Your task to perform on an android device: check out phone information Image 0: 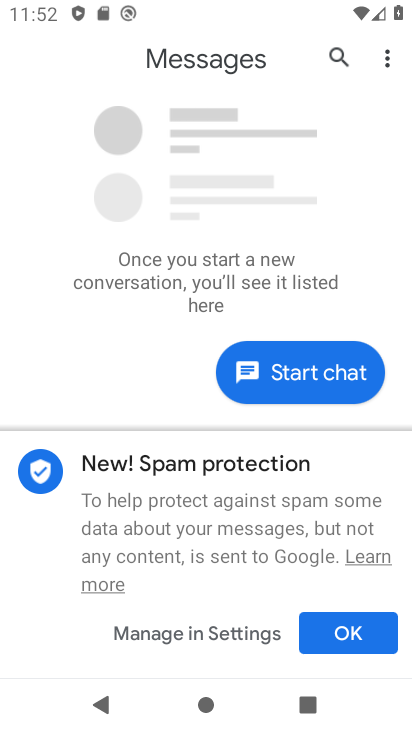
Step 0: press home button
Your task to perform on an android device: check out phone information Image 1: 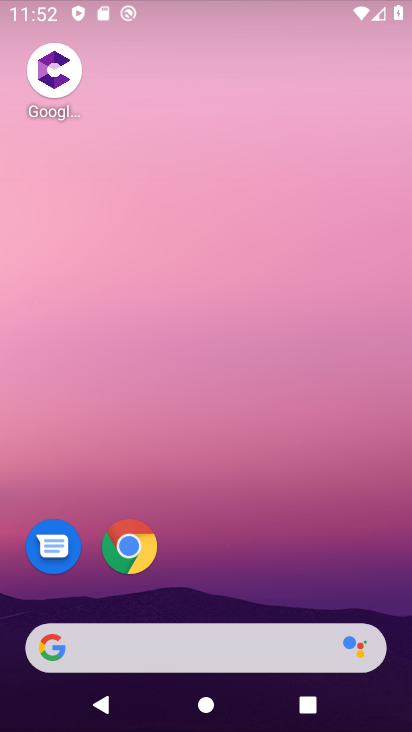
Step 1: drag from (255, 544) to (263, 107)
Your task to perform on an android device: check out phone information Image 2: 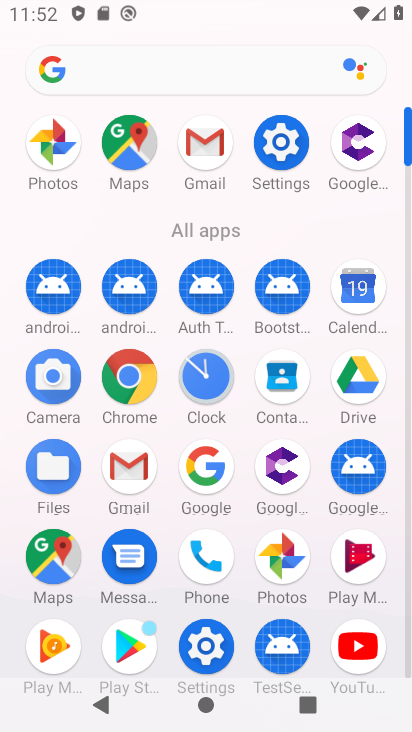
Step 2: click (217, 564)
Your task to perform on an android device: check out phone information Image 3: 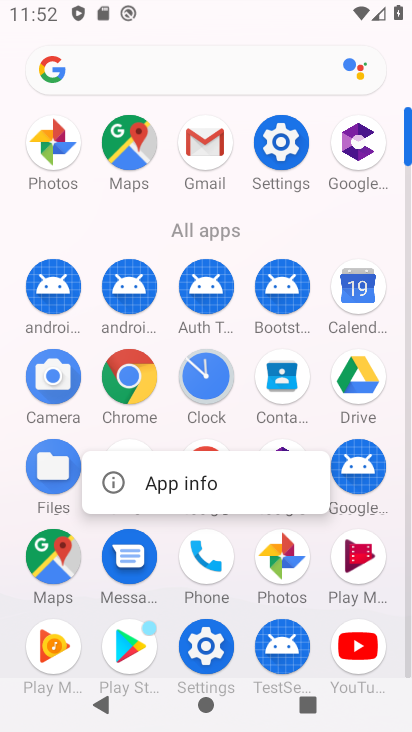
Step 3: click (220, 469)
Your task to perform on an android device: check out phone information Image 4: 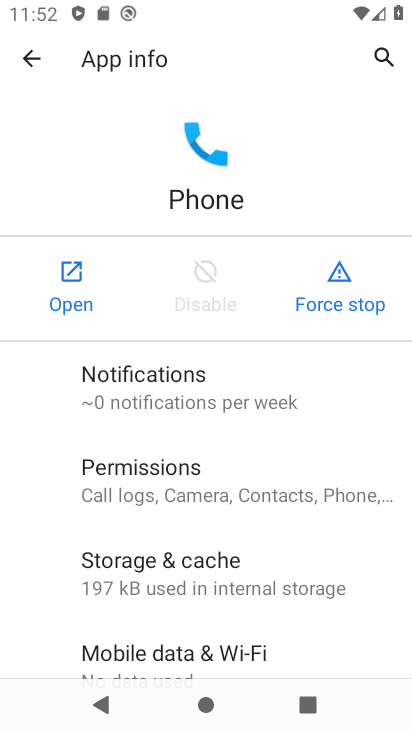
Step 4: task complete